Your task to perform on an android device: Show the shopping cart on costco.com. Add "acer nitro" to the cart on costco.com Image 0: 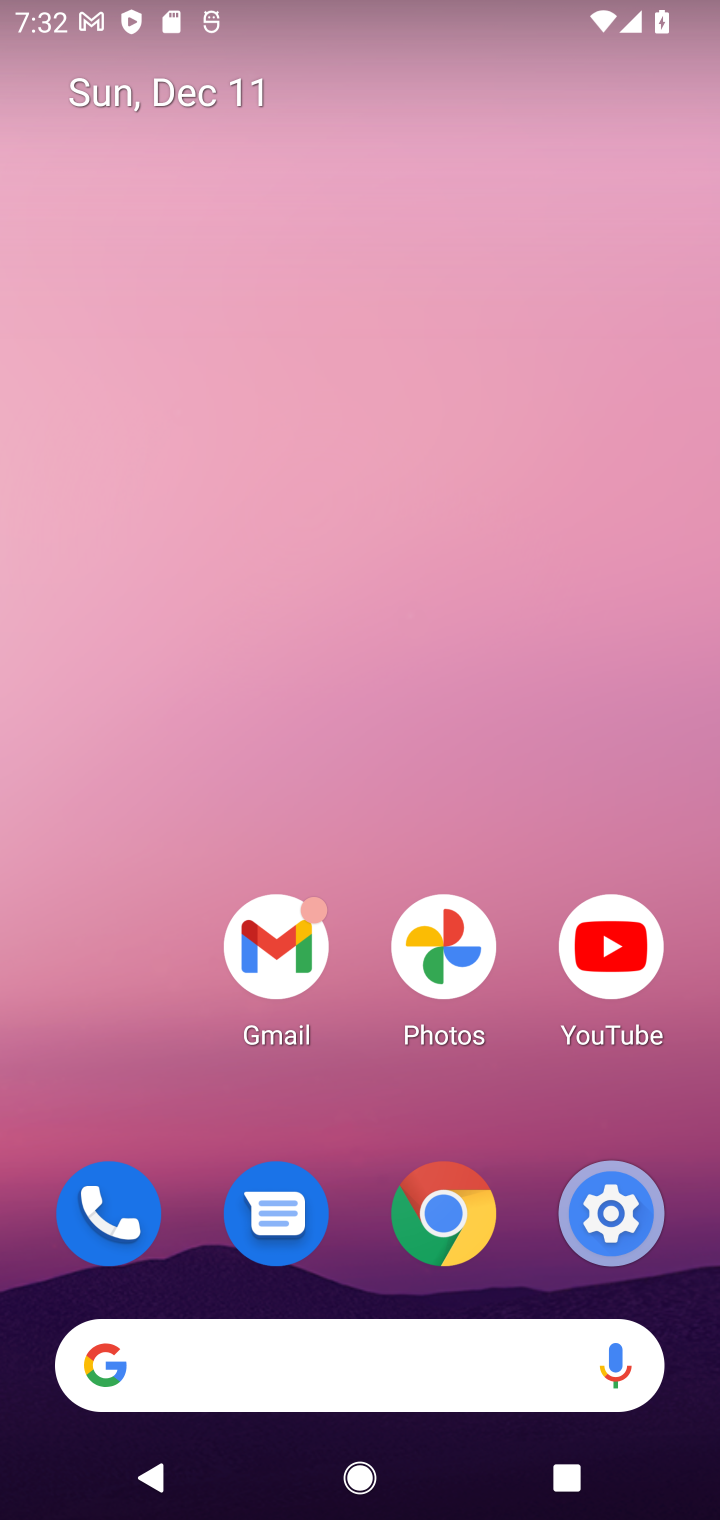
Step 0: click (383, 1359)
Your task to perform on an android device: Show the shopping cart on costco.com. Add "acer nitro" to the cart on costco.com Image 1: 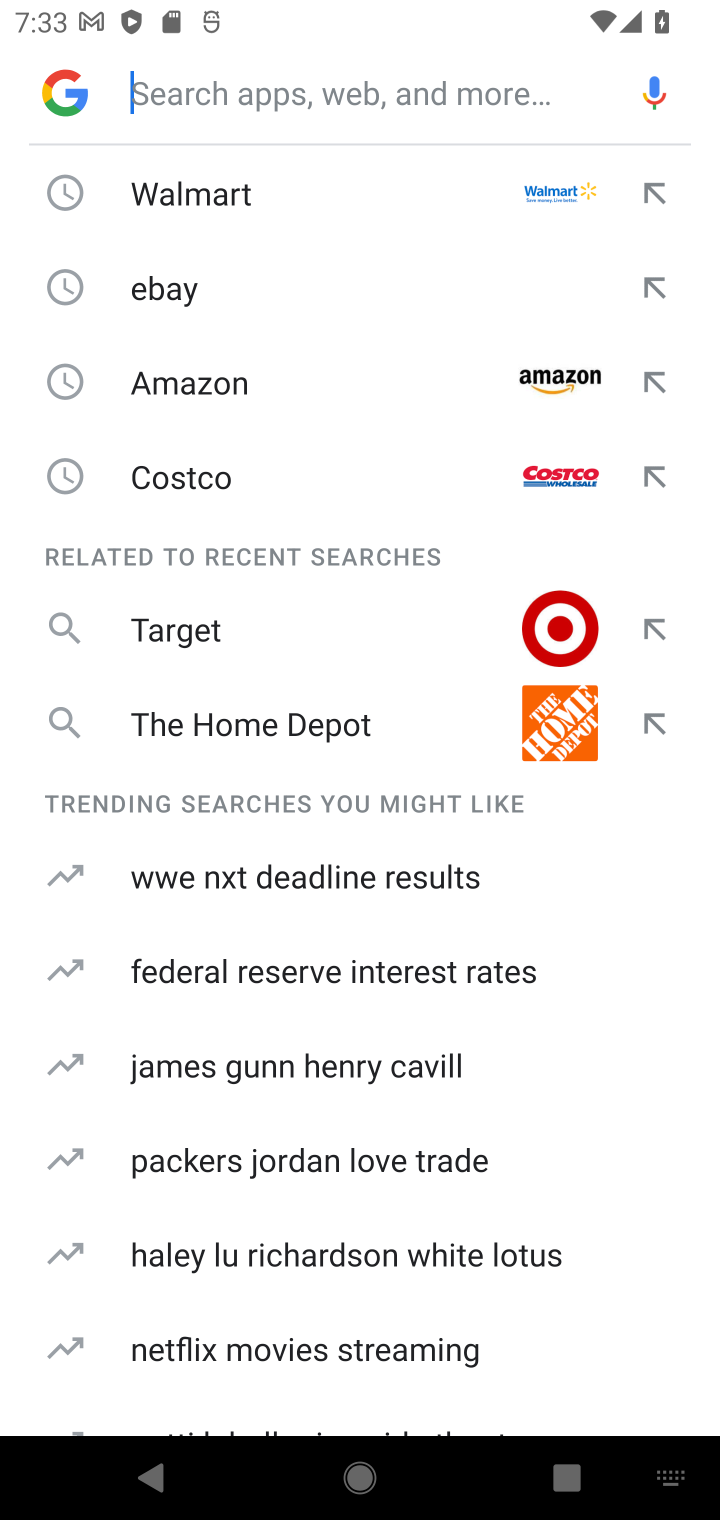
Step 1: click (214, 493)
Your task to perform on an android device: Show the shopping cart on costco.com. Add "acer nitro" to the cart on costco.com Image 2: 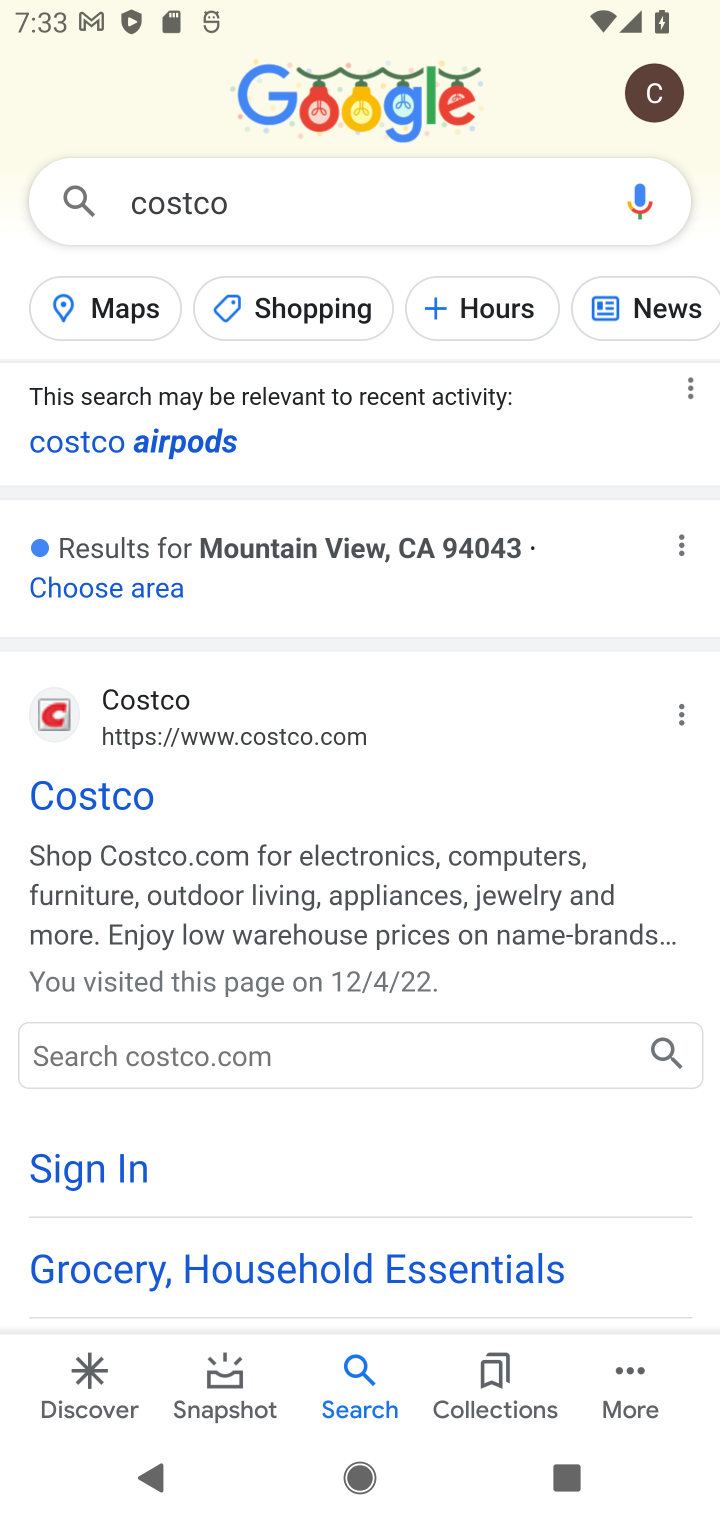
Step 2: click (109, 745)
Your task to perform on an android device: Show the shopping cart on costco.com. Add "acer nitro" to the cart on costco.com Image 3: 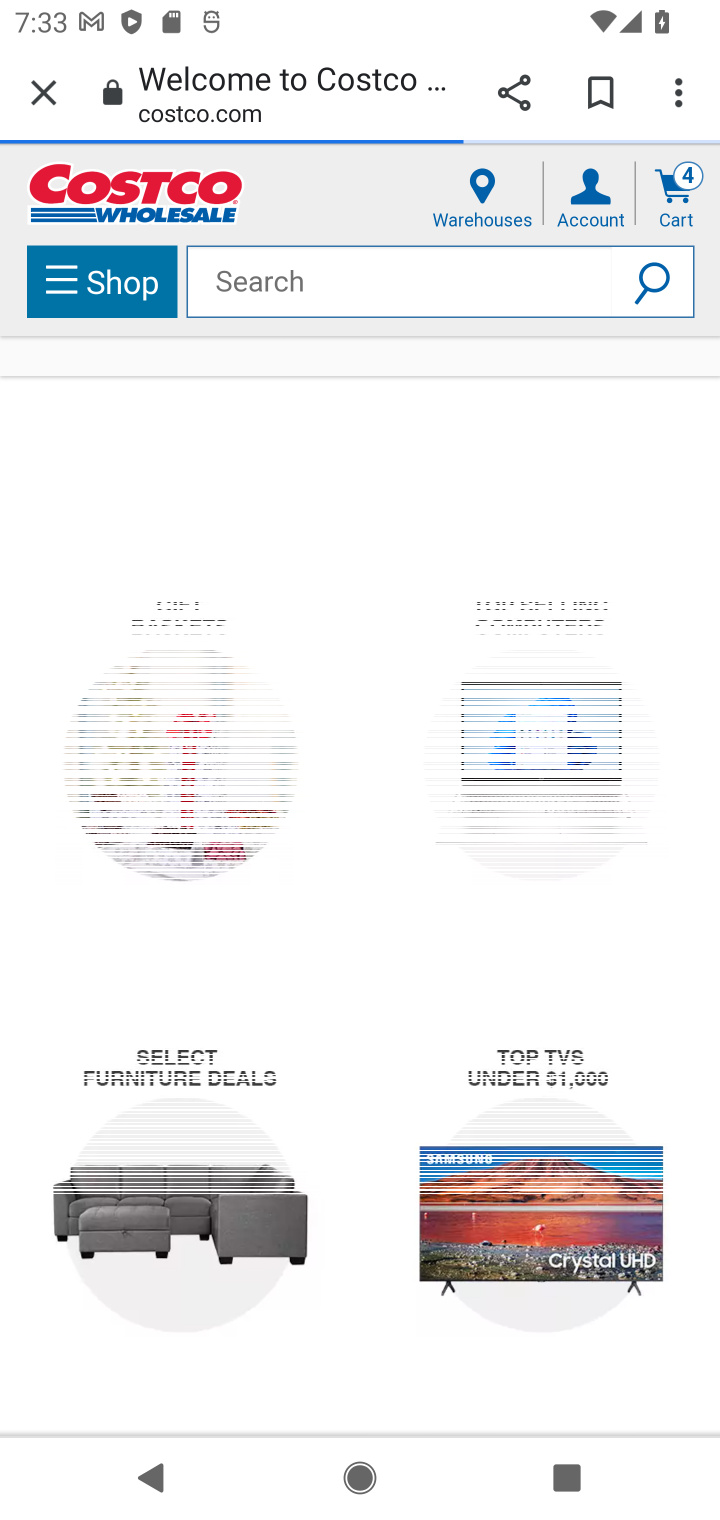
Step 3: click (353, 265)
Your task to perform on an android device: Show the shopping cart on costco.com. Add "acer nitro" to the cart on costco.com Image 4: 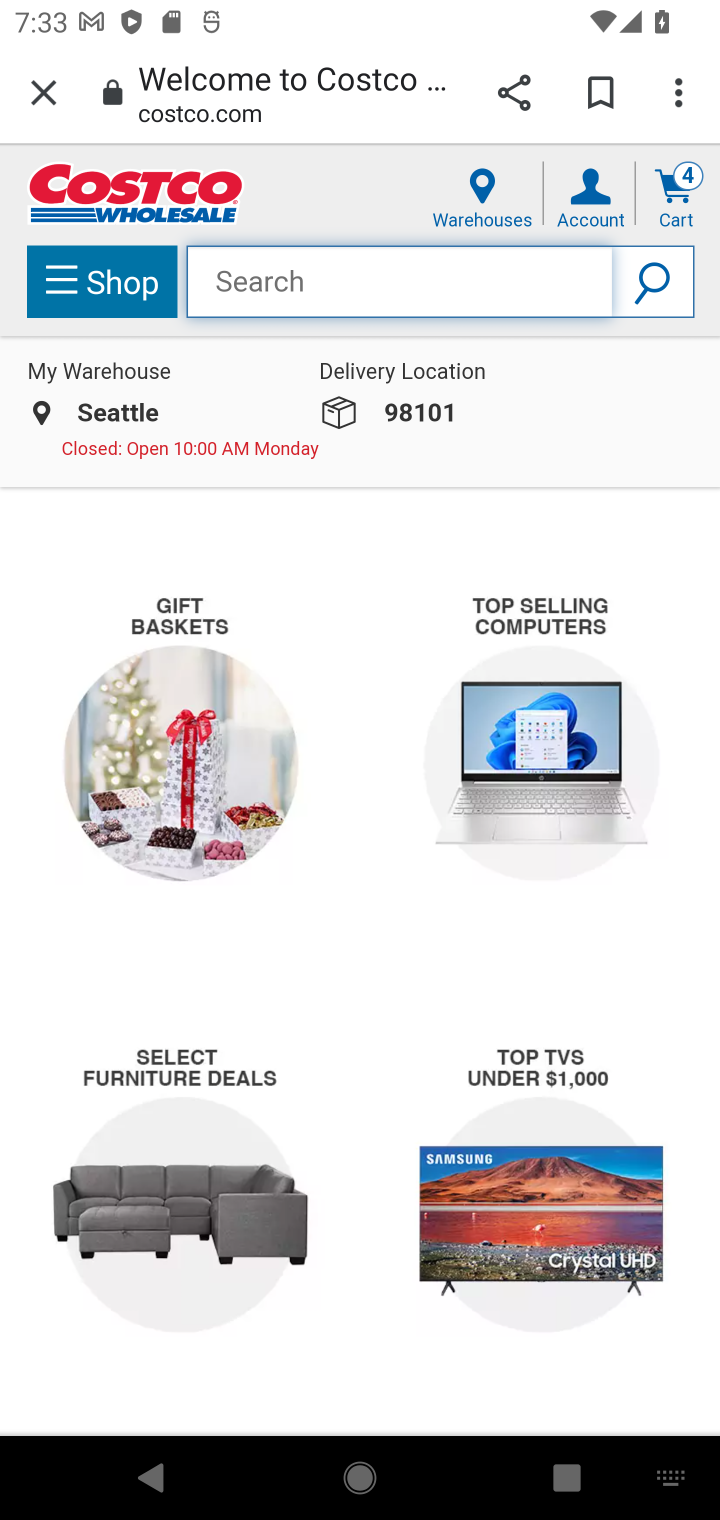
Step 4: type "acer nitro"
Your task to perform on an android device: Show the shopping cart on costco.com. Add "acer nitro" to the cart on costco.com Image 5: 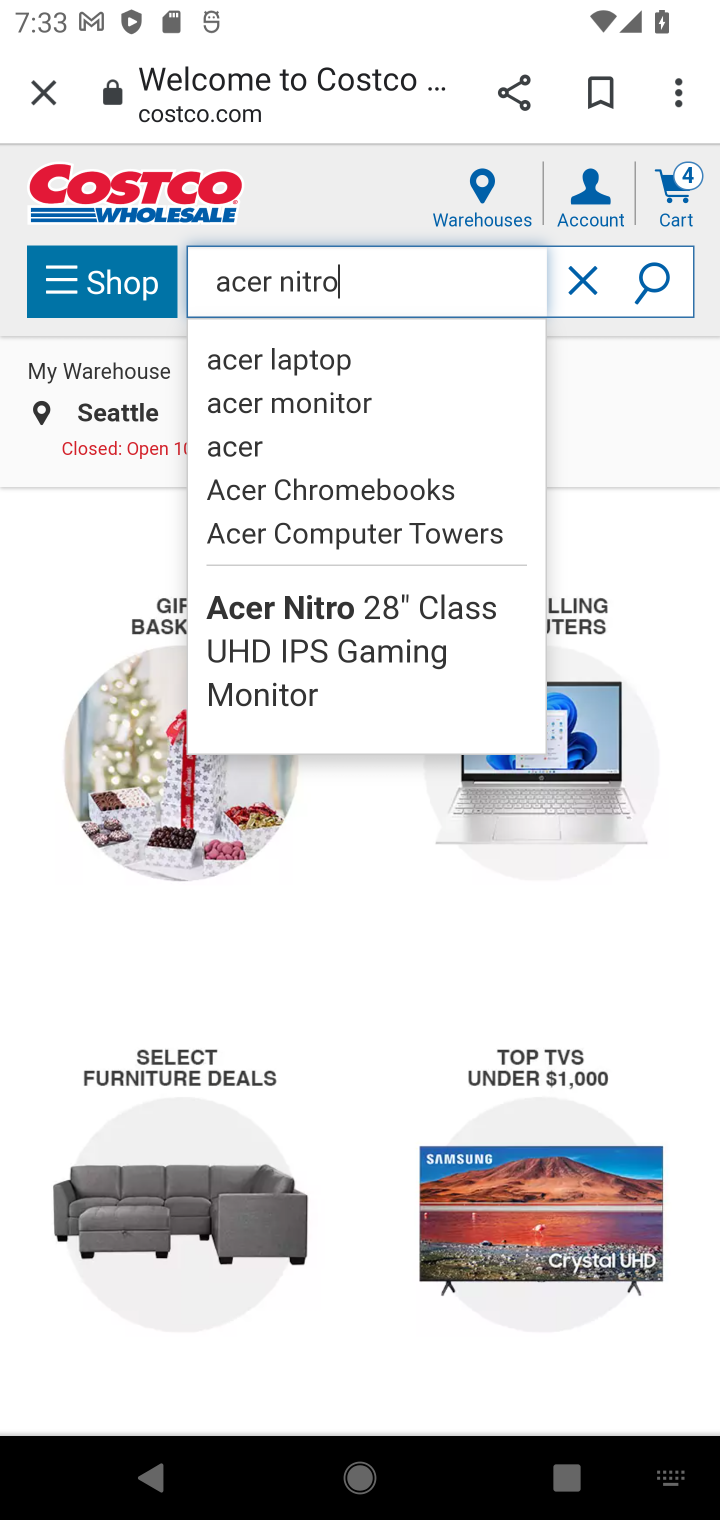
Step 5: click (655, 294)
Your task to perform on an android device: Show the shopping cart on costco.com. Add "acer nitro" to the cart on costco.com Image 6: 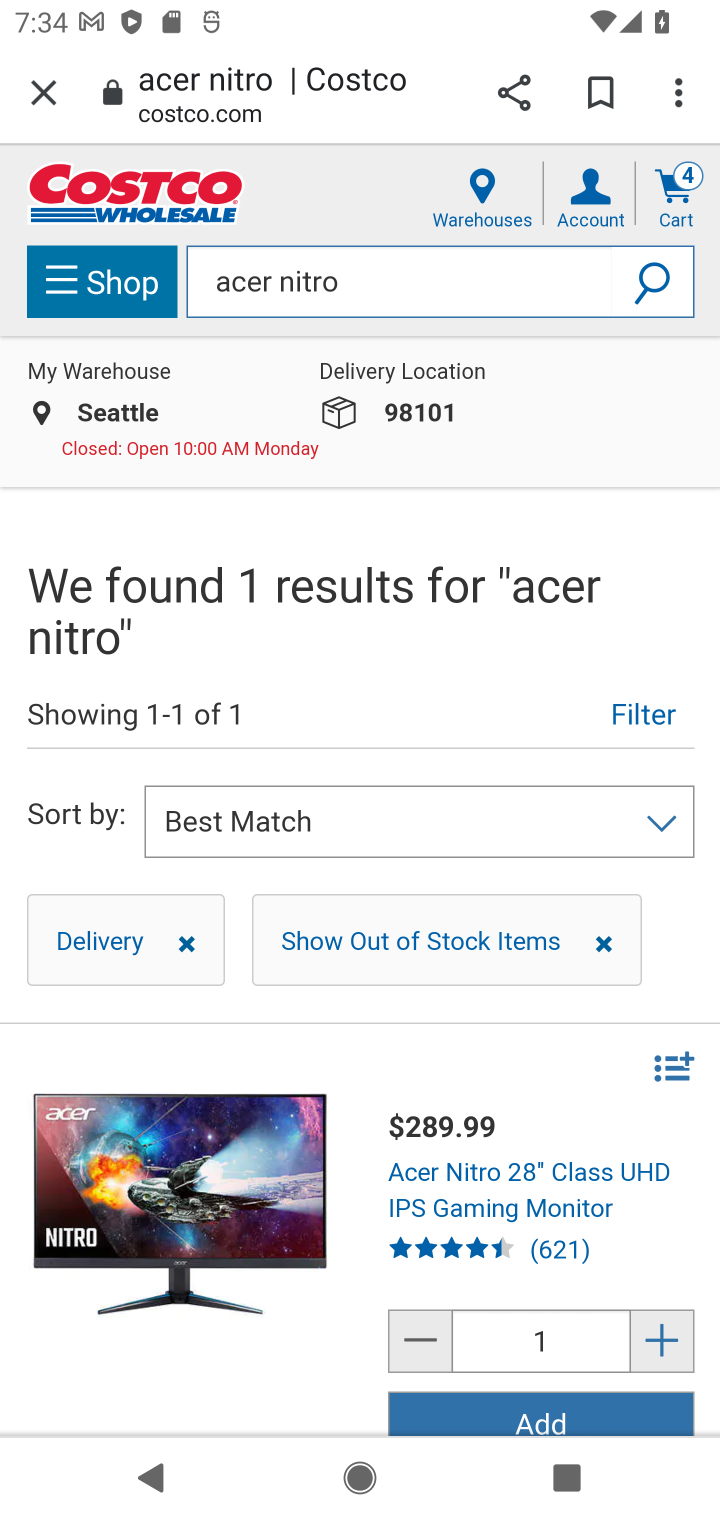
Step 6: click (560, 1426)
Your task to perform on an android device: Show the shopping cart on costco.com. Add "acer nitro" to the cart on costco.com Image 7: 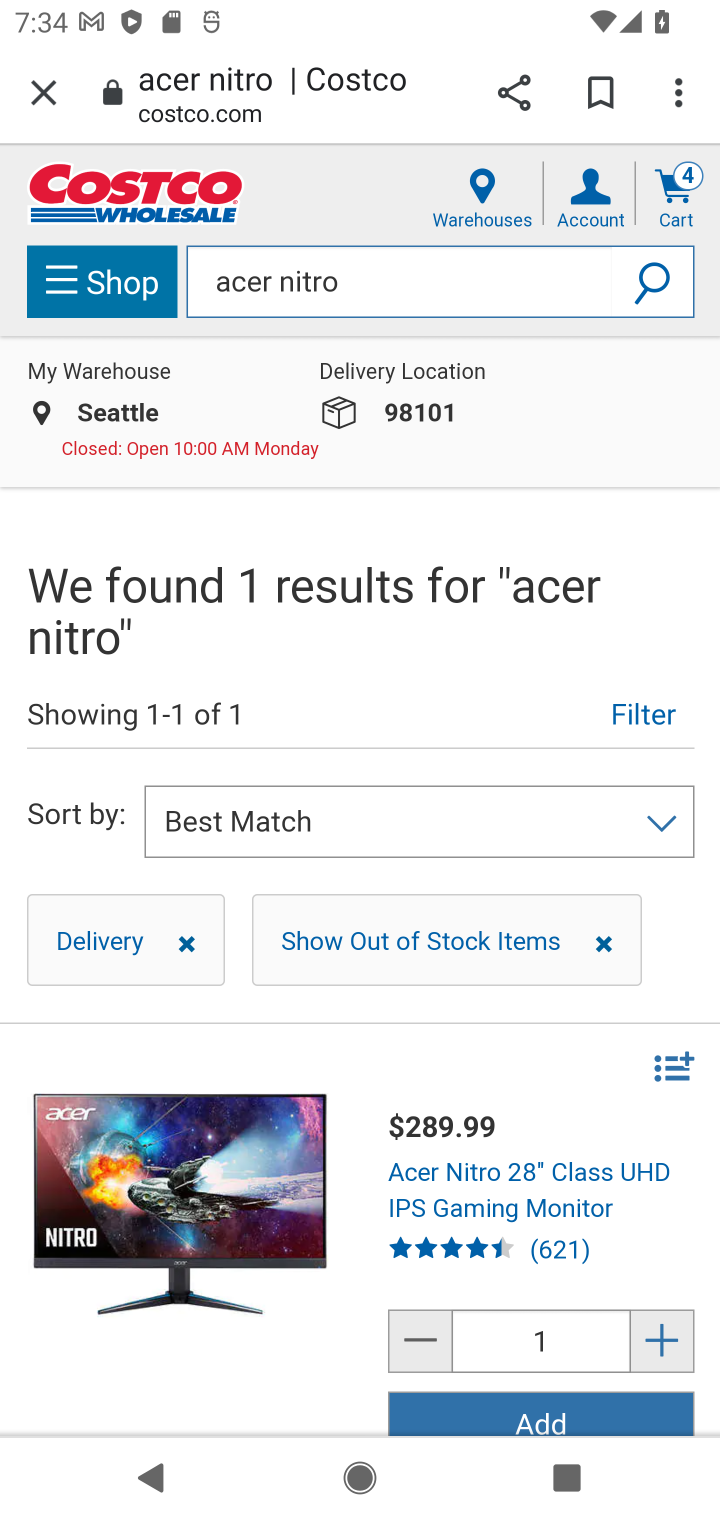
Step 7: task complete